Your task to perform on an android device: turn off location history Image 0: 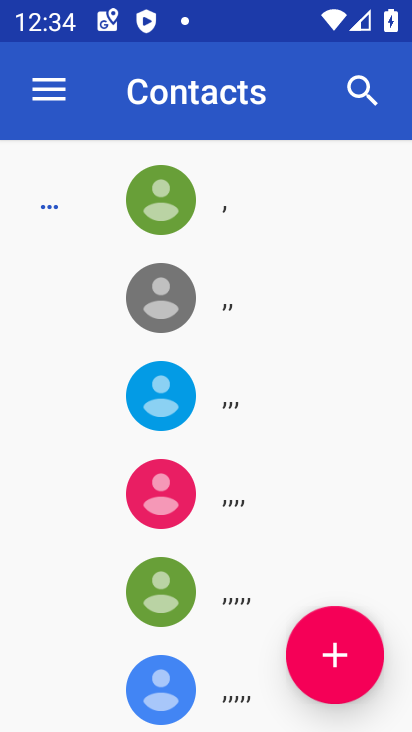
Step 0: press home button
Your task to perform on an android device: turn off location history Image 1: 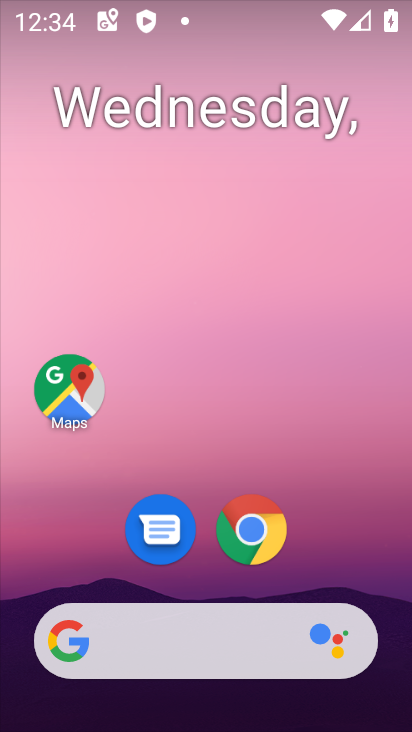
Step 1: click (61, 392)
Your task to perform on an android device: turn off location history Image 2: 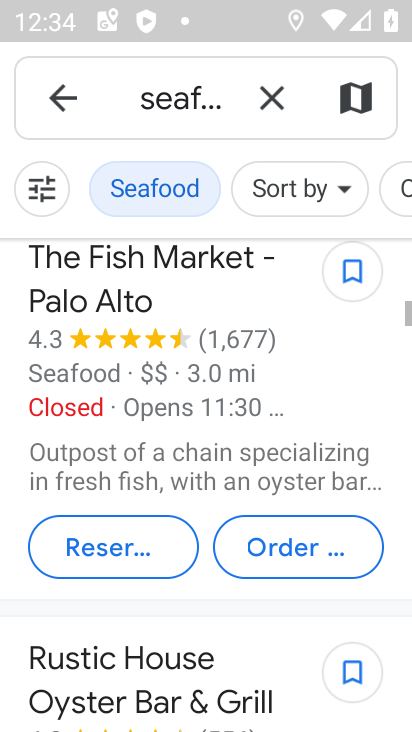
Step 2: click (270, 100)
Your task to perform on an android device: turn off location history Image 3: 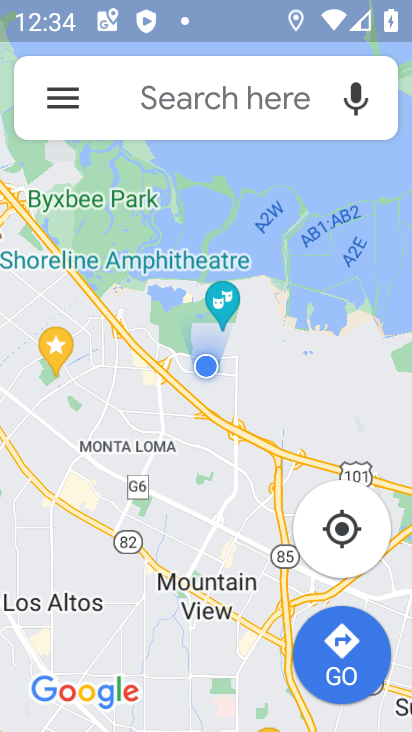
Step 3: click (61, 100)
Your task to perform on an android device: turn off location history Image 4: 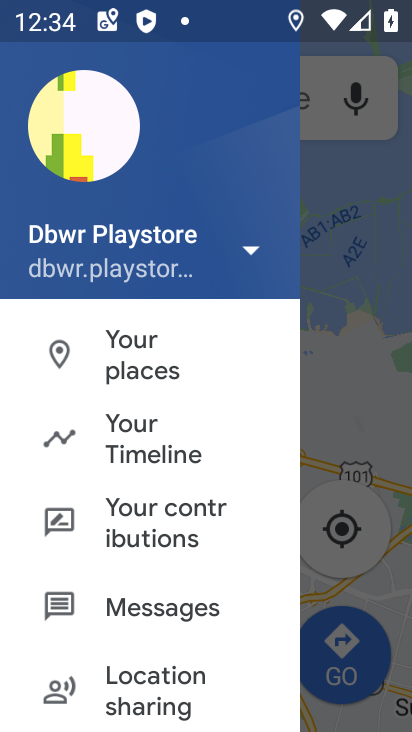
Step 4: drag from (232, 657) to (197, 224)
Your task to perform on an android device: turn off location history Image 5: 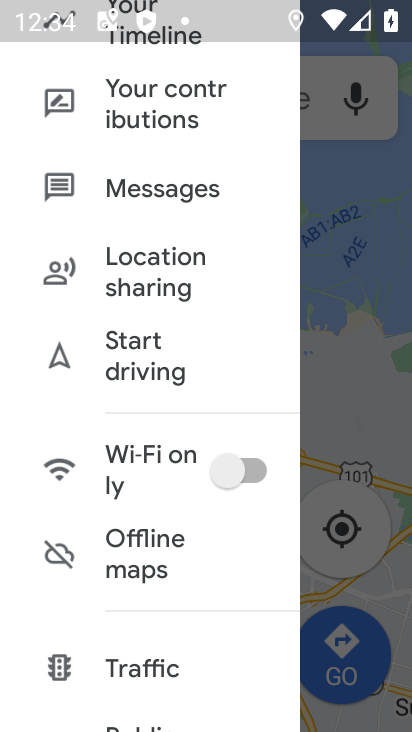
Step 5: drag from (218, 662) to (199, 192)
Your task to perform on an android device: turn off location history Image 6: 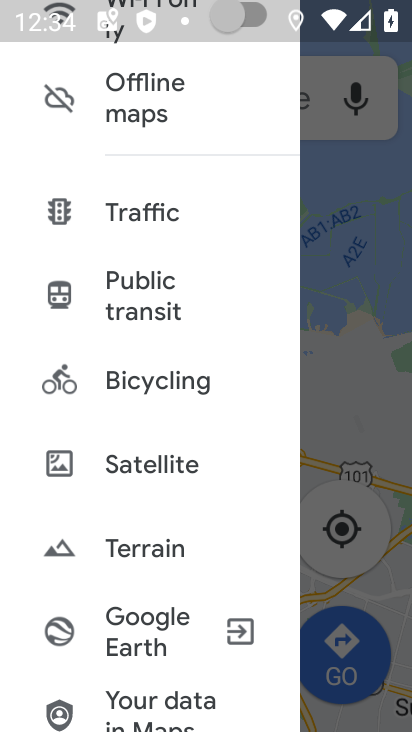
Step 6: drag from (213, 673) to (210, 239)
Your task to perform on an android device: turn off location history Image 7: 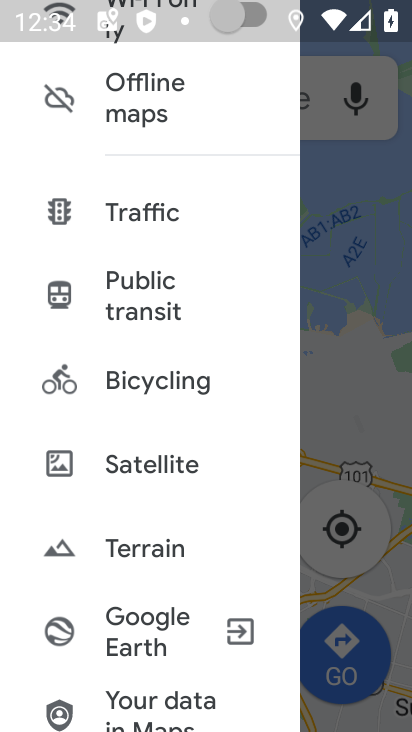
Step 7: drag from (210, 680) to (182, 174)
Your task to perform on an android device: turn off location history Image 8: 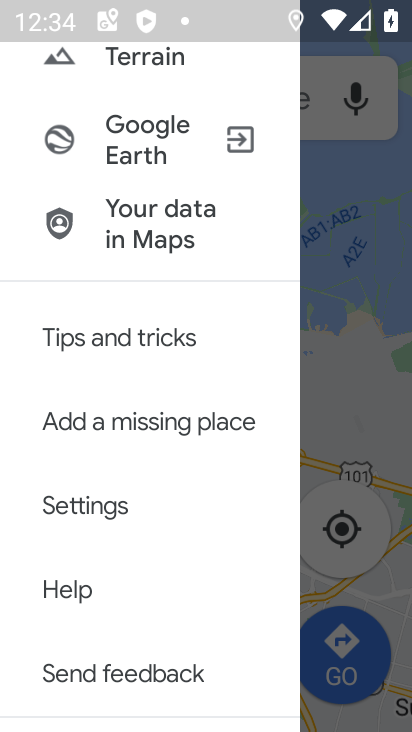
Step 8: click (101, 508)
Your task to perform on an android device: turn off location history Image 9: 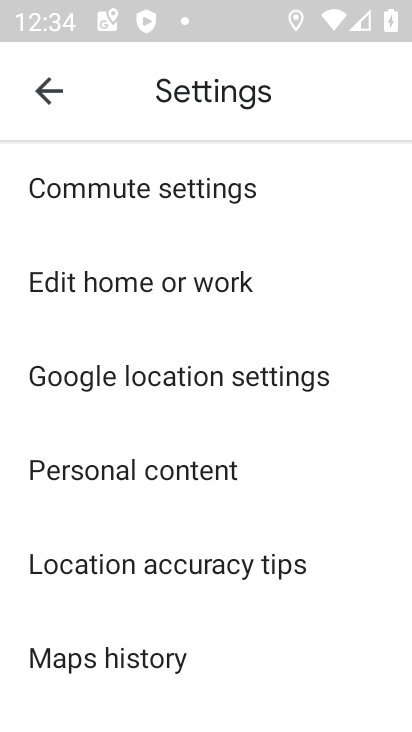
Step 9: click (108, 484)
Your task to perform on an android device: turn off location history Image 10: 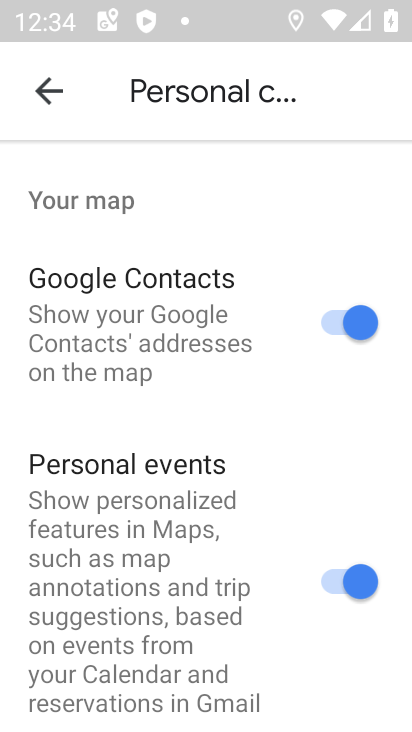
Step 10: drag from (292, 665) to (209, 184)
Your task to perform on an android device: turn off location history Image 11: 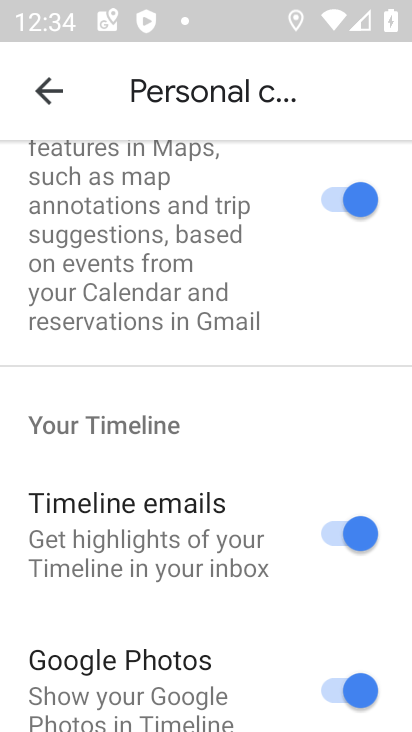
Step 11: drag from (267, 690) to (259, 232)
Your task to perform on an android device: turn off location history Image 12: 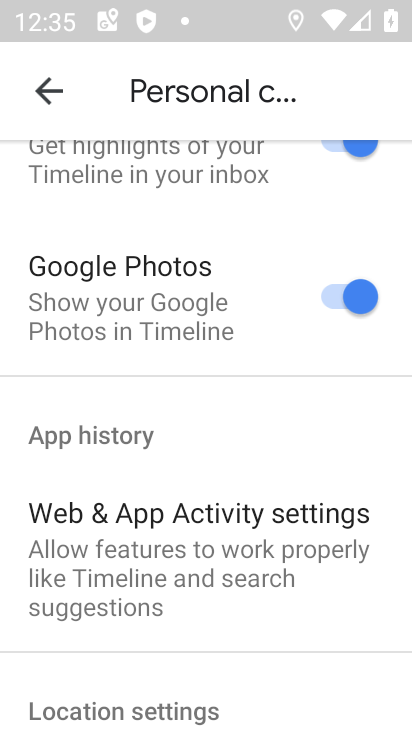
Step 12: drag from (306, 693) to (267, 195)
Your task to perform on an android device: turn off location history Image 13: 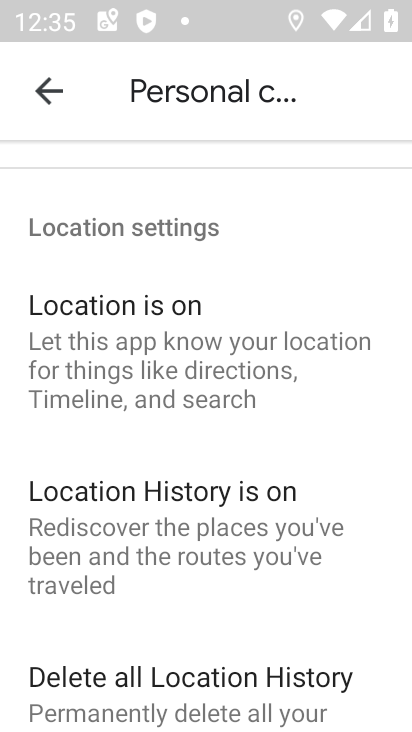
Step 13: click (131, 510)
Your task to perform on an android device: turn off location history Image 14: 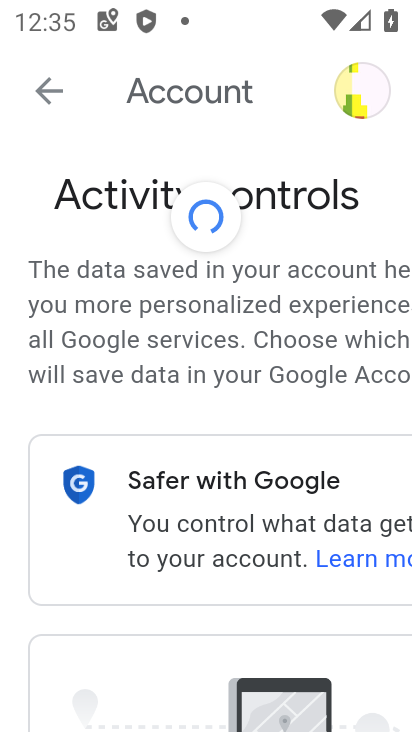
Step 14: drag from (324, 608) to (236, 161)
Your task to perform on an android device: turn off location history Image 15: 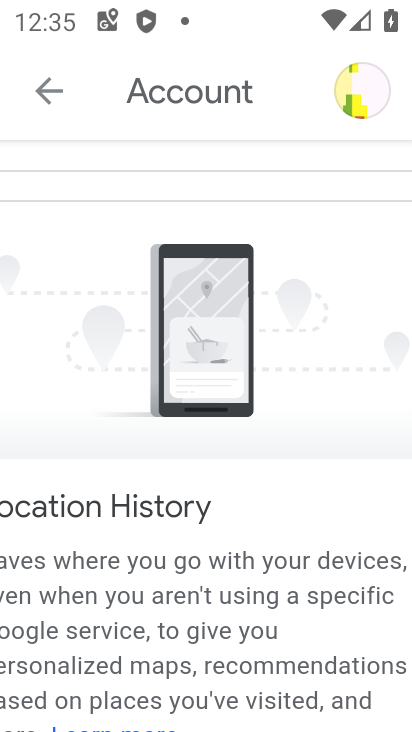
Step 15: drag from (331, 693) to (237, 162)
Your task to perform on an android device: turn off location history Image 16: 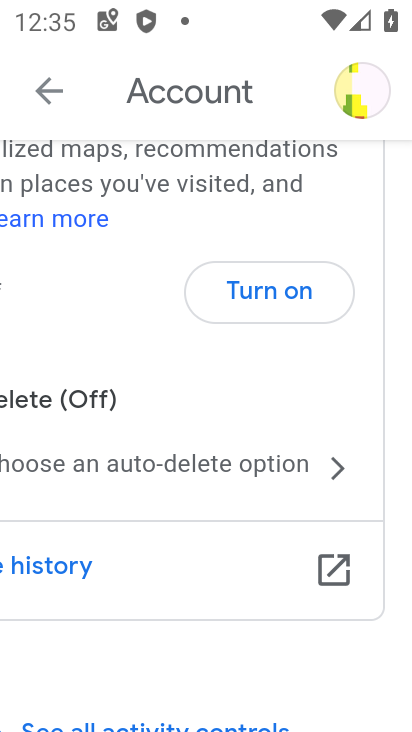
Step 16: click (269, 293)
Your task to perform on an android device: turn off location history Image 17: 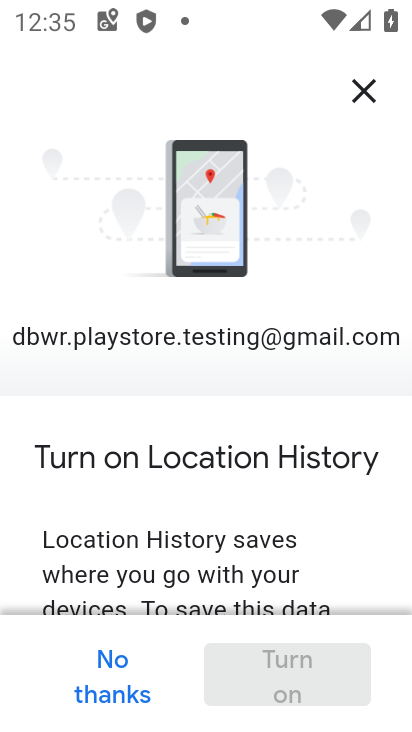
Step 17: drag from (277, 566) to (187, 74)
Your task to perform on an android device: turn off location history Image 18: 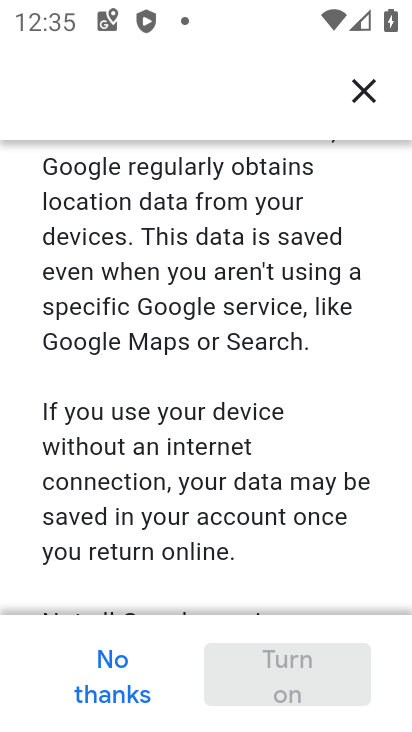
Step 18: drag from (275, 589) to (230, 108)
Your task to perform on an android device: turn off location history Image 19: 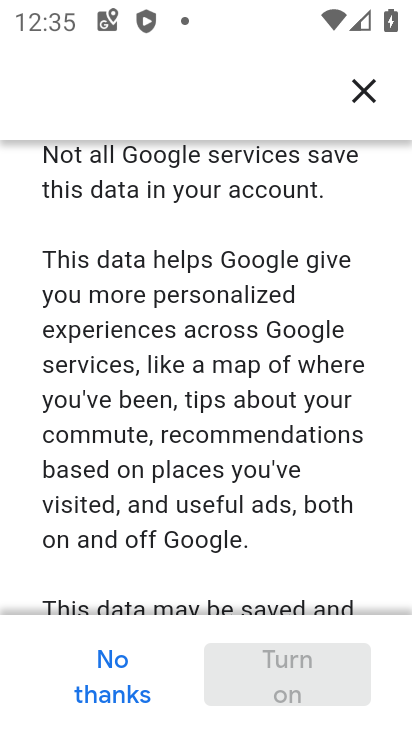
Step 19: drag from (266, 598) to (233, 163)
Your task to perform on an android device: turn off location history Image 20: 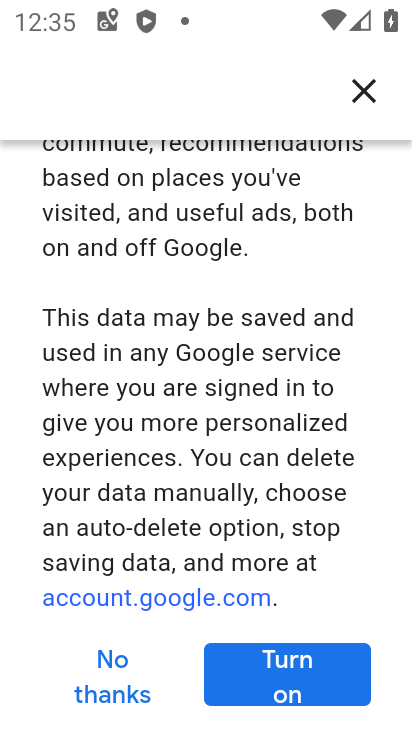
Step 20: click (293, 675)
Your task to perform on an android device: turn off location history Image 21: 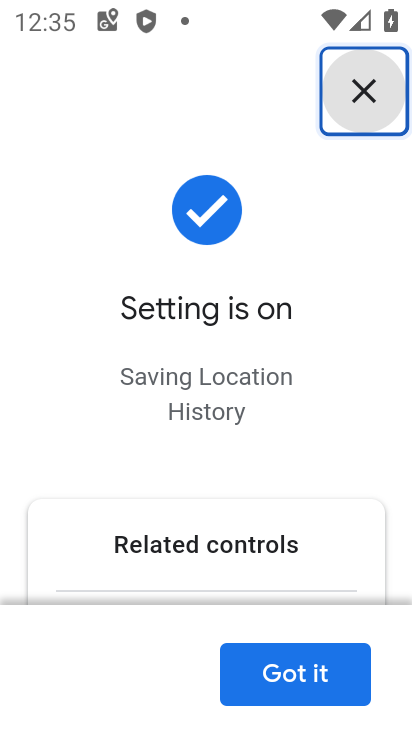
Step 21: click (297, 680)
Your task to perform on an android device: turn off location history Image 22: 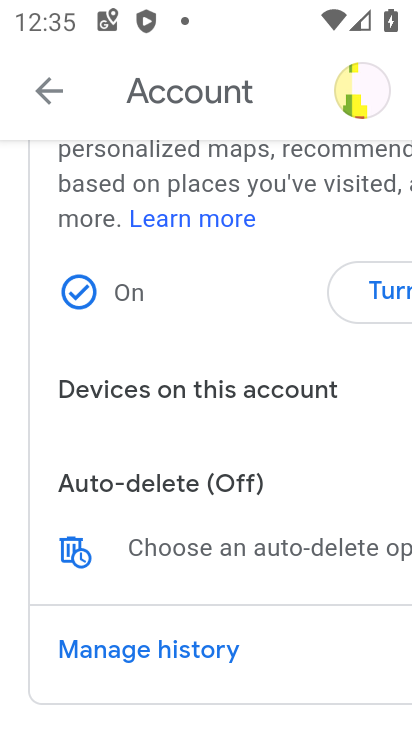
Step 22: task complete